Your task to perform on an android device: Go to internet settings Image 0: 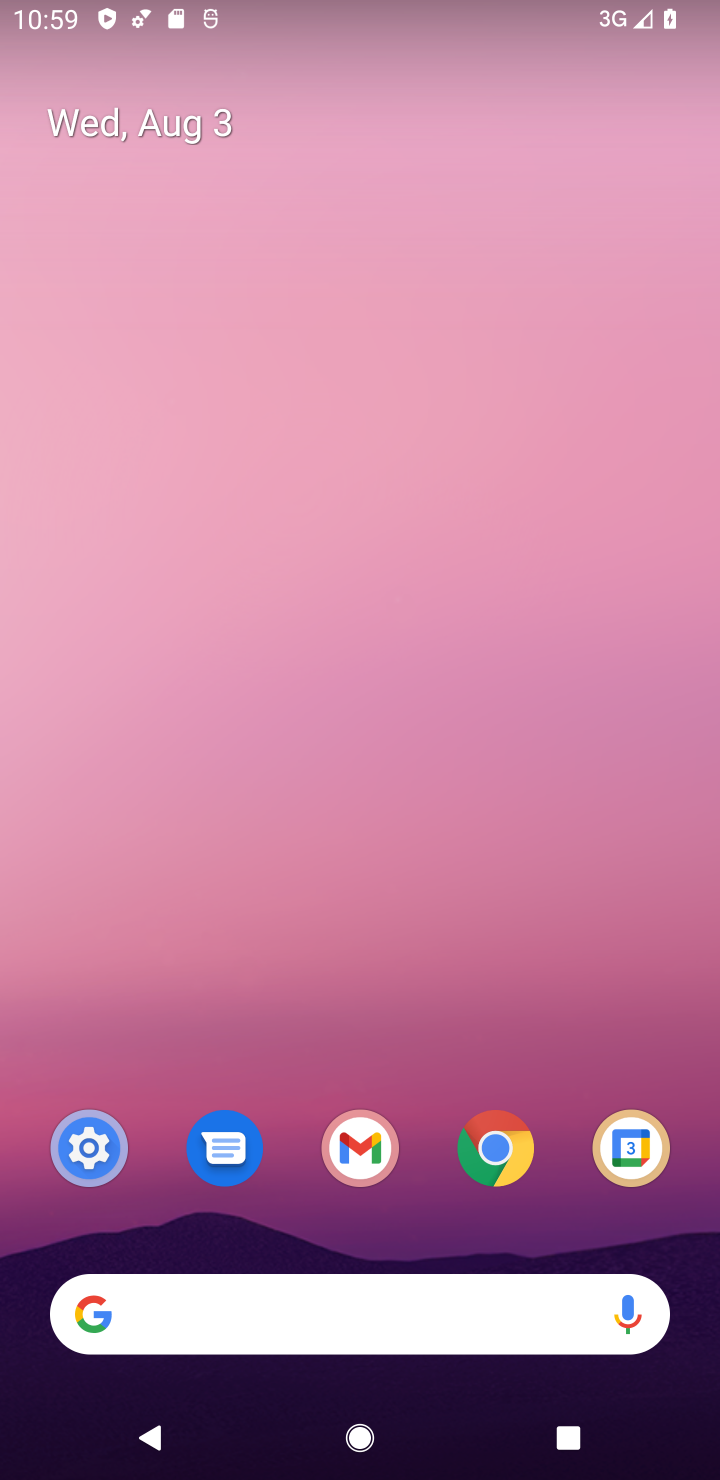
Step 0: drag from (399, 1008) to (453, 321)
Your task to perform on an android device: Go to internet settings Image 1: 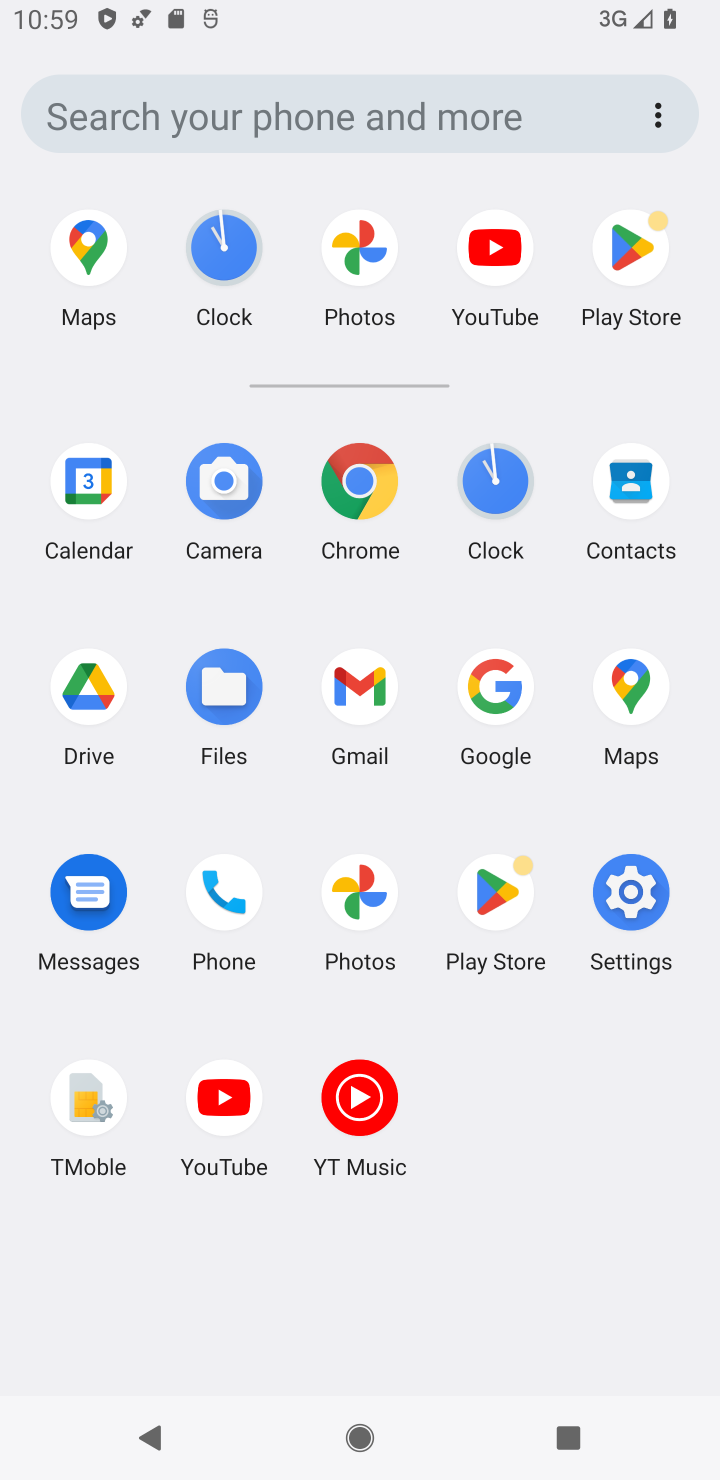
Step 1: click (358, 472)
Your task to perform on an android device: Go to internet settings Image 2: 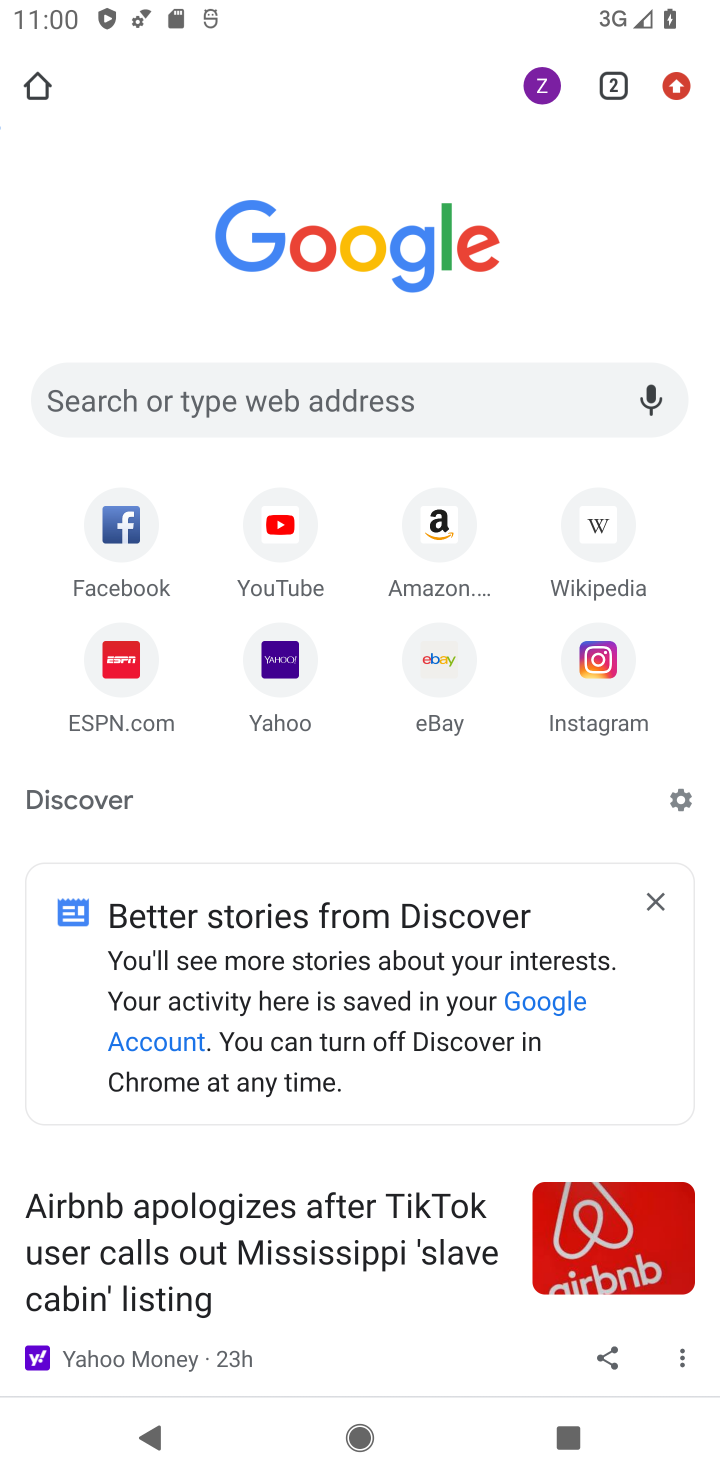
Step 2: press home button
Your task to perform on an android device: Go to internet settings Image 3: 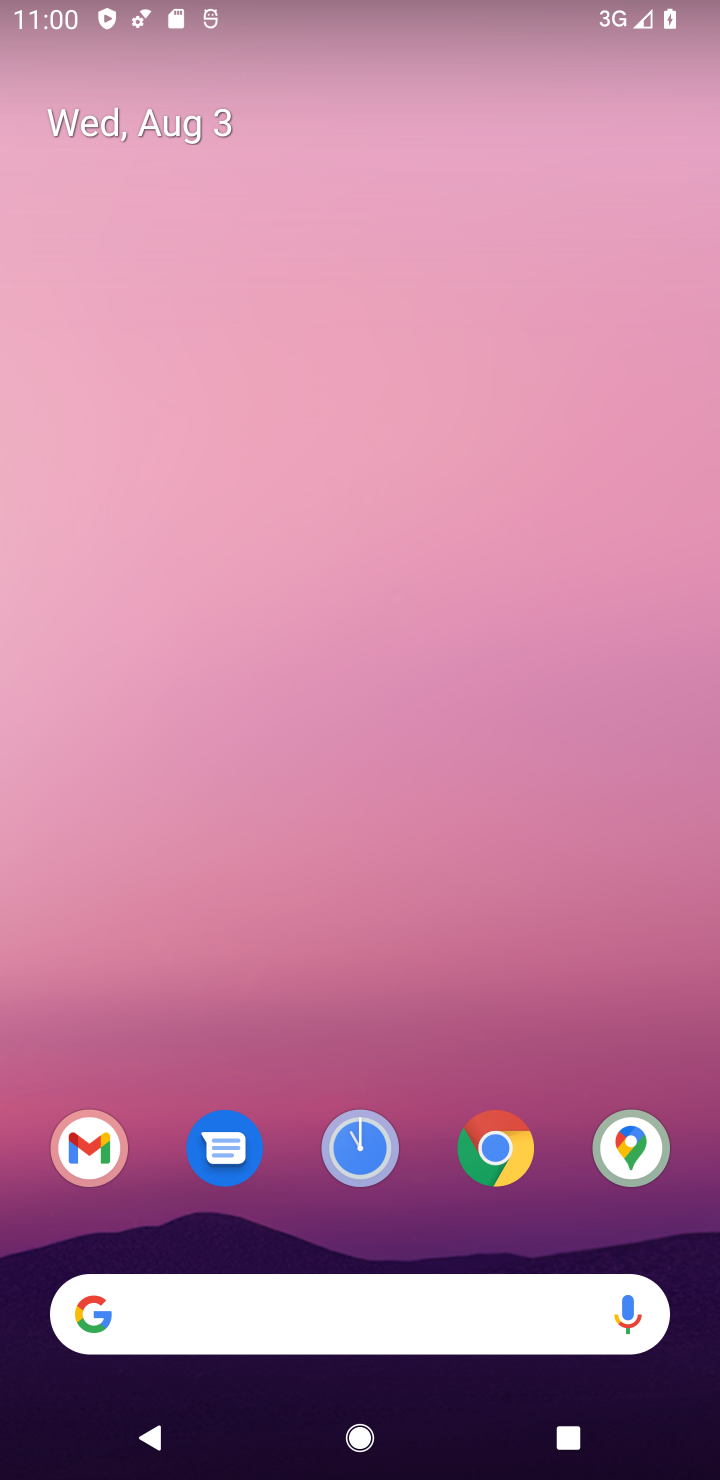
Step 3: drag from (343, 899) to (254, 216)
Your task to perform on an android device: Go to internet settings Image 4: 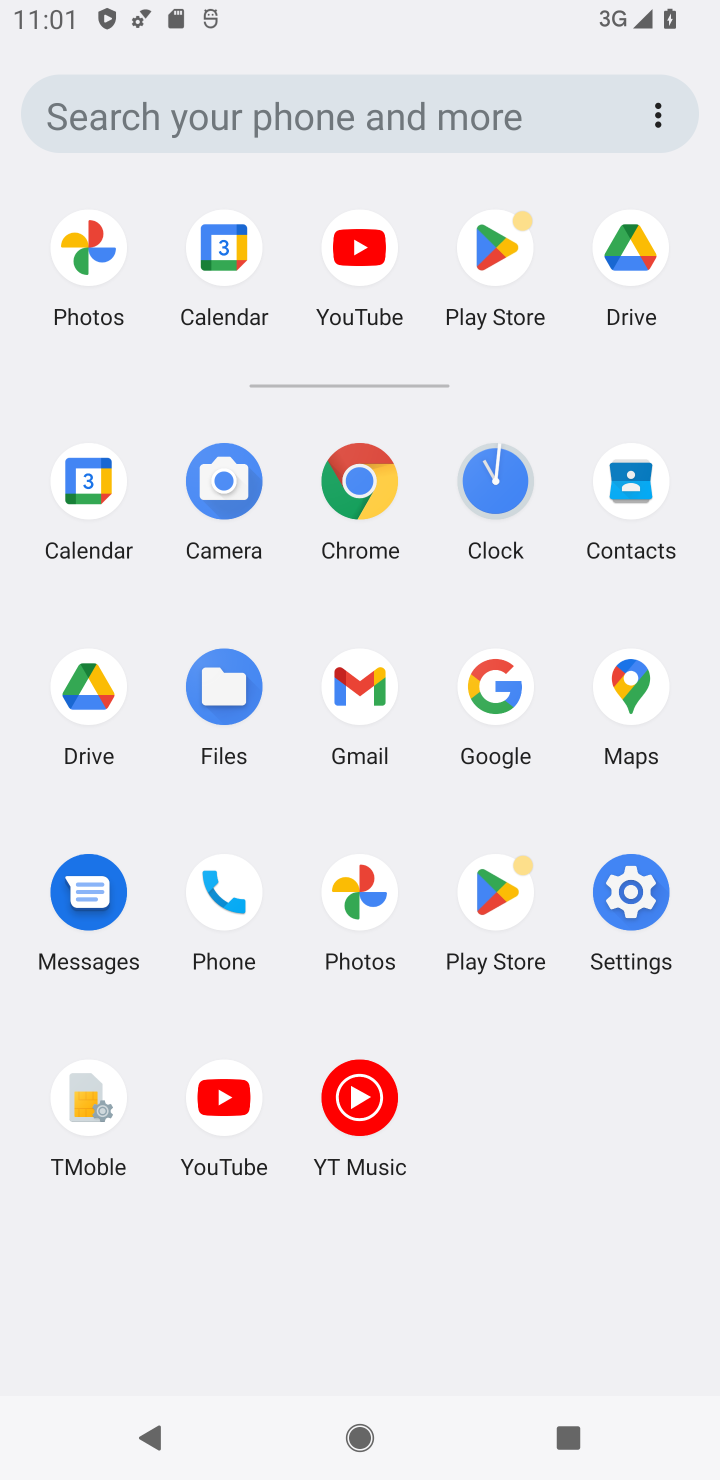
Step 4: click (639, 893)
Your task to perform on an android device: Go to internet settings Image 5: 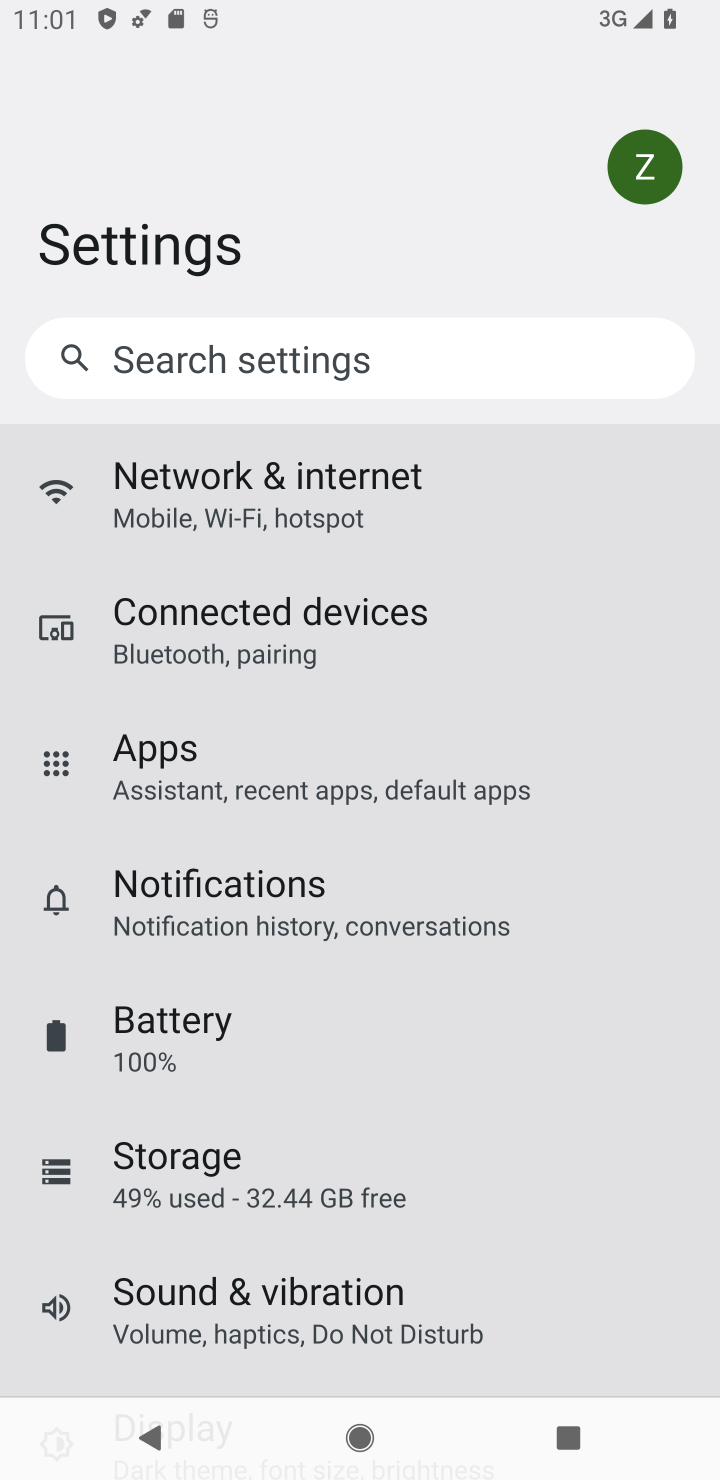
Step 5: click (325, 514)
Your task to perform on an android device: Go to internet settings Image 6: 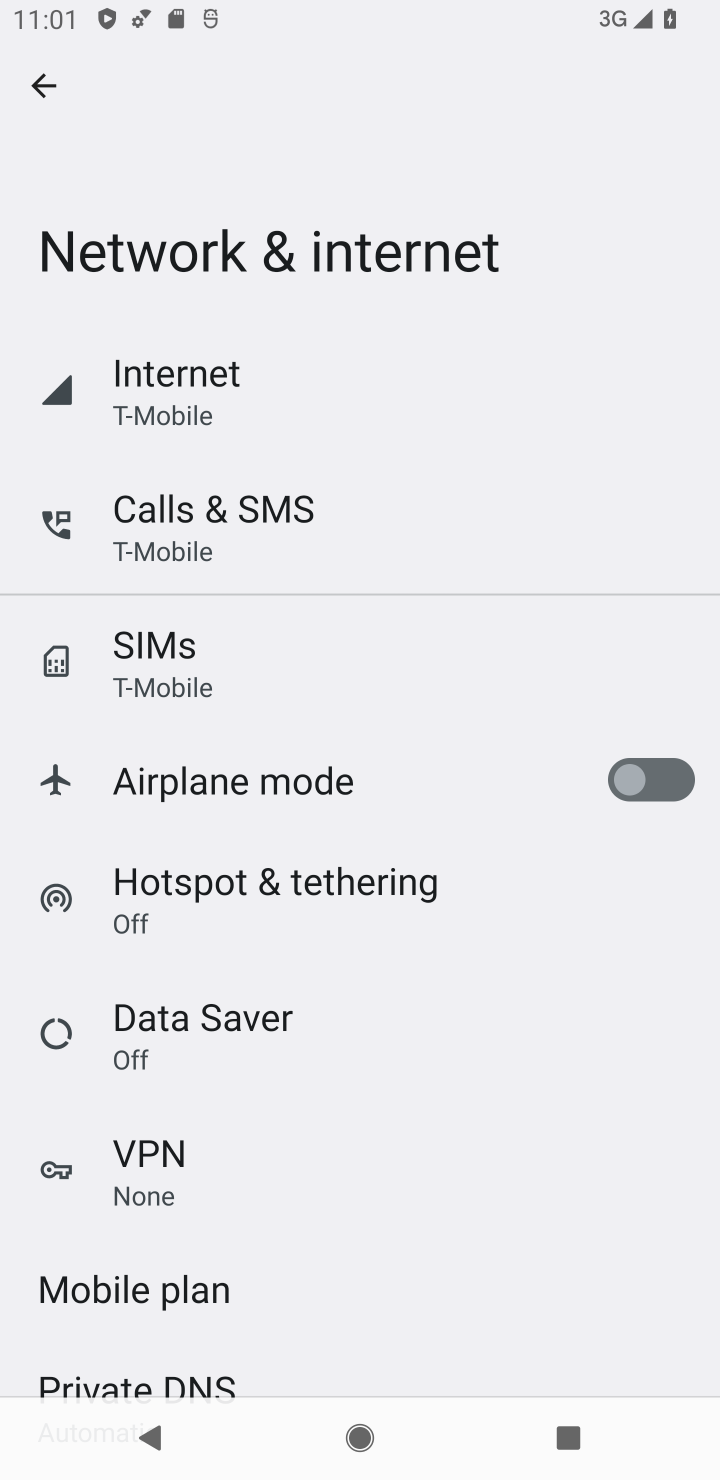
Step 6: click (246, 431)
Your task to perform on an android device: Go to internet settings Image 7: 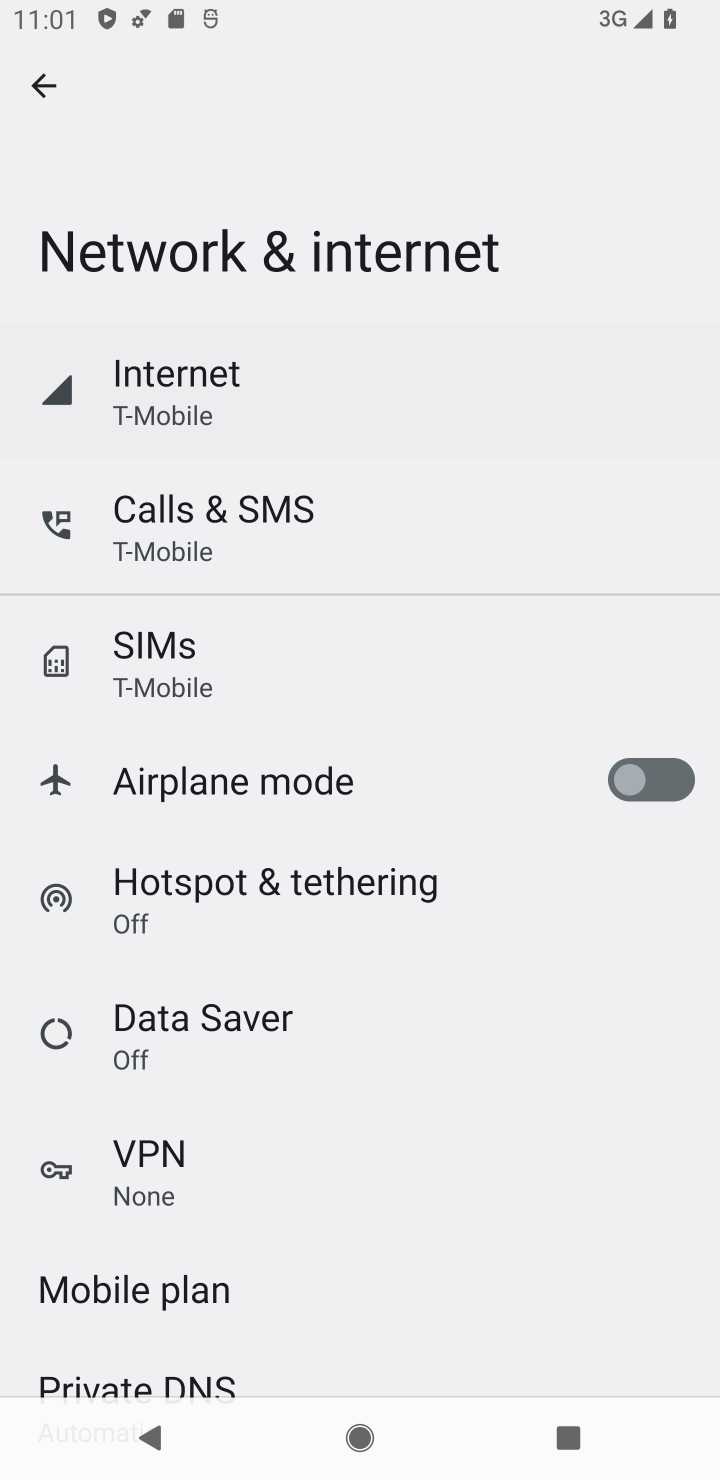
Step 7: click (229, 404)
Your task to perform on an android device: Go to internet settings Image 8: 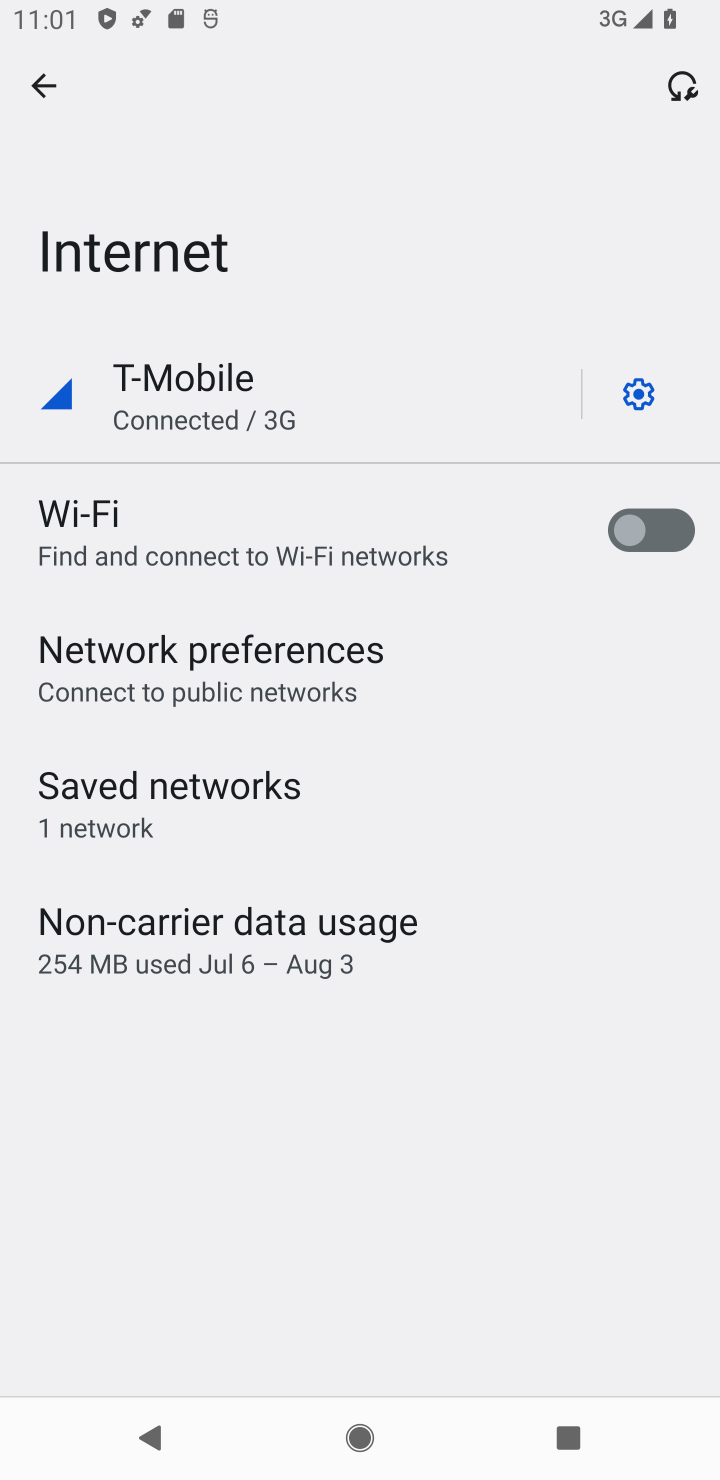
Step 8: task complete